Your task to perform on an android device: toggle airplane mode Image 0: 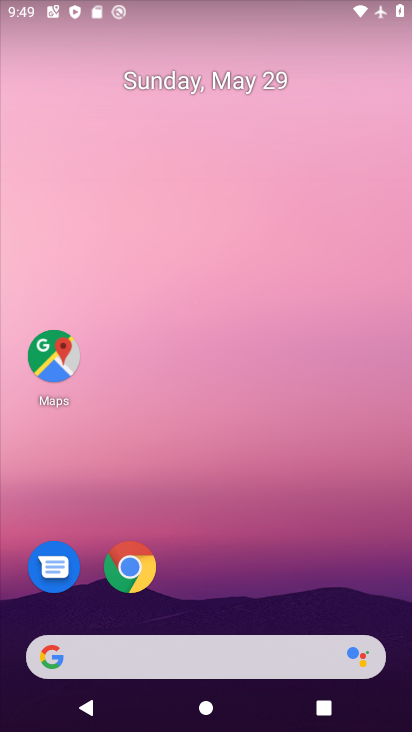
Step 0: drag from (379, 623) to (360, 22)
Your task to perform on an android device: toggle airplane mode Image 1: 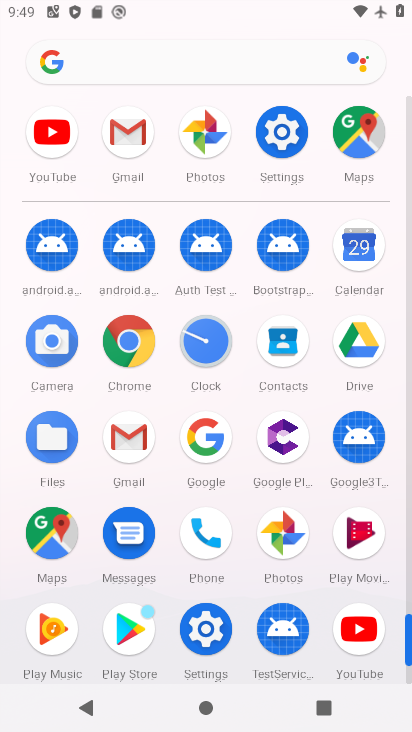
Step 1: click (206, 626)
Your task to perform on an android device: toggle airplane mode Image 2: 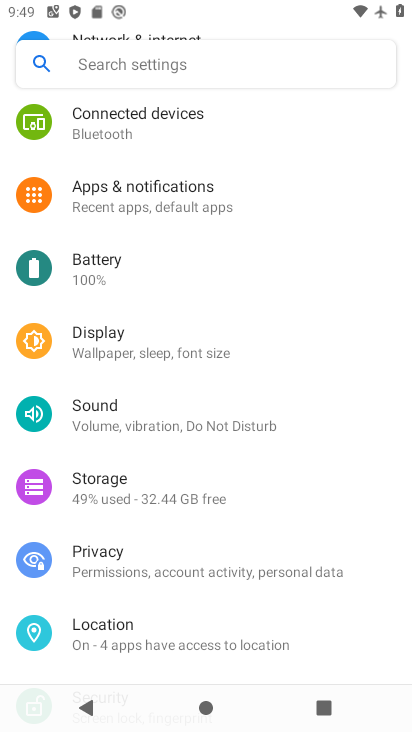
Step 2: drag from (321, 175) to (325, 406)
Your task to perform on an android device: toggle airplane mode Image 3: 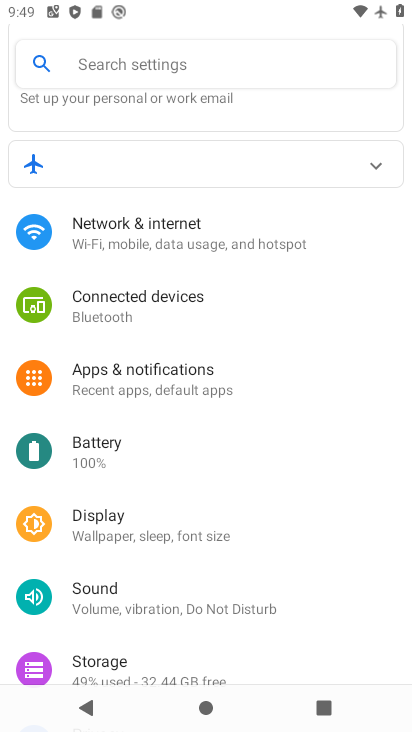
Step 3: click (127, 228)
Your task to perform on an android device: toggle airplane mode Image 4: 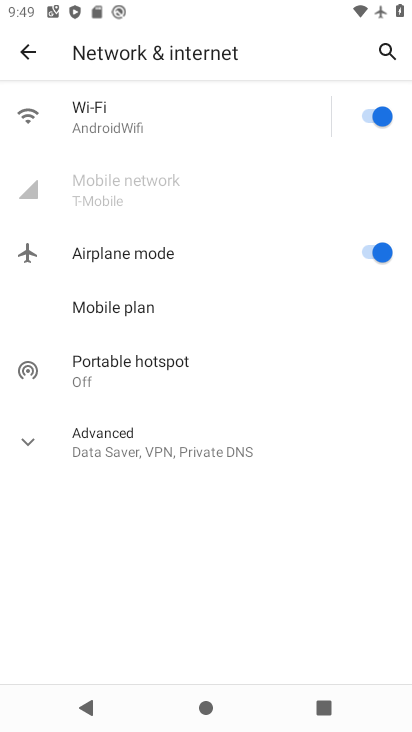
Step 4: click (367, 247)
Your task to perform on an android device: toggle airplane mode Image 5: 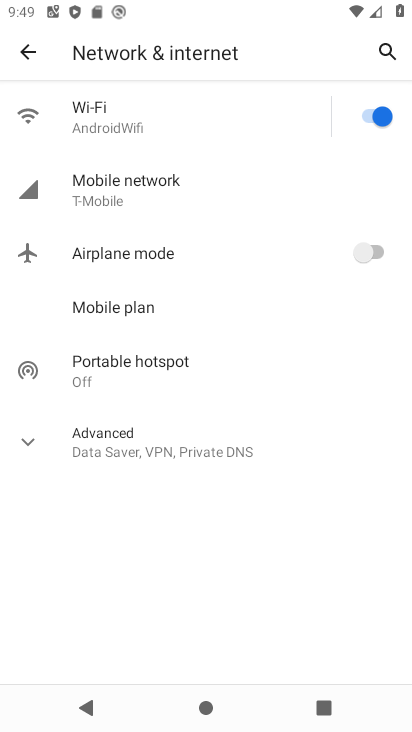
Step 5: task complete